Your task to perform on an android device: Go to notification settings Image 0: 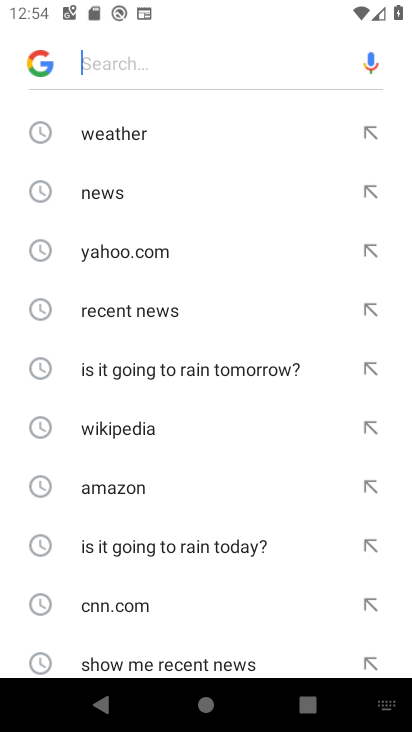
Step 0: press home button
Your task to perform on an android device: Go to notification settings Image 1: 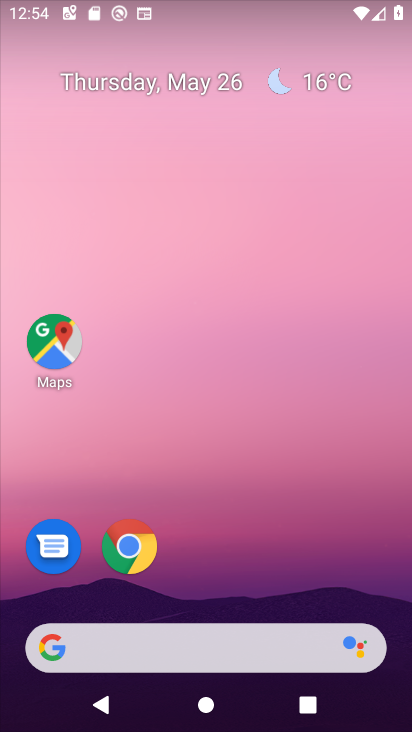
Step 1: drag from (228, 586) to (282, 188)
Your task to perform on an android device: Go to notification settings Image 2: 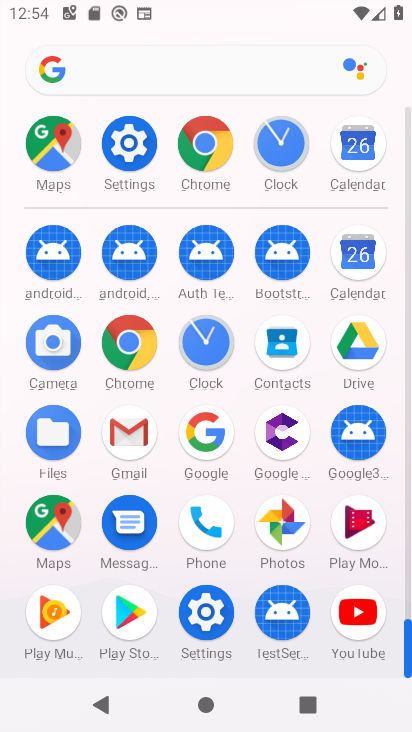
Step 2: click (207, 615)
Your task to perform on an android device: Go to notification settings Image 3: 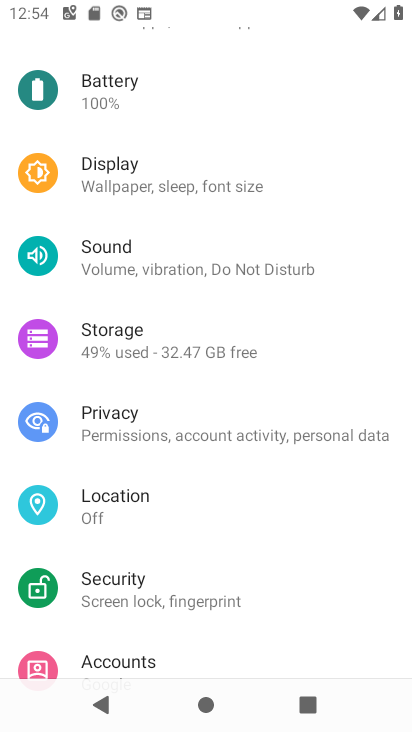
Step 3: drag from (208, 189) to (183, 697)
Your task to perform on an android device: Go to notification settings Image 4: 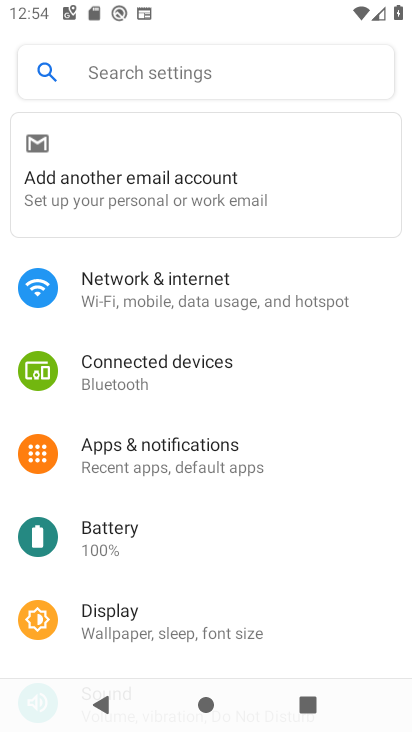
Step 4: click (164, 455)
Your task to perform on an android device: Go to notification settings Image 5: 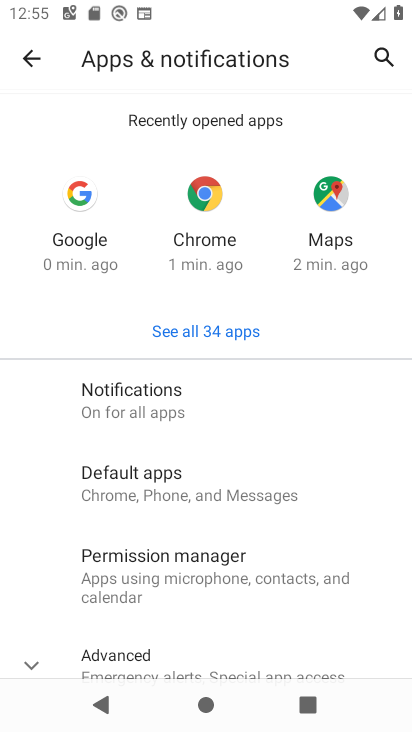
Step 5: task complete